Your task to perform on an android device: Open the phone app and click the voicemail tab. Image 0: 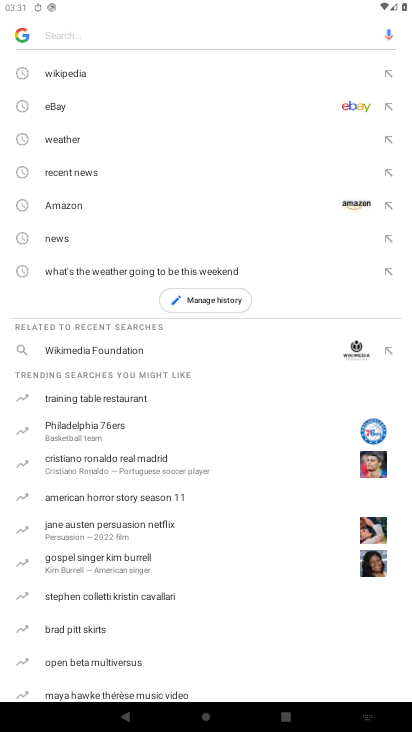
Step 0: press home button
Your task to perform on an android device: Open the phone app and click the voicemail tab. Image 1: 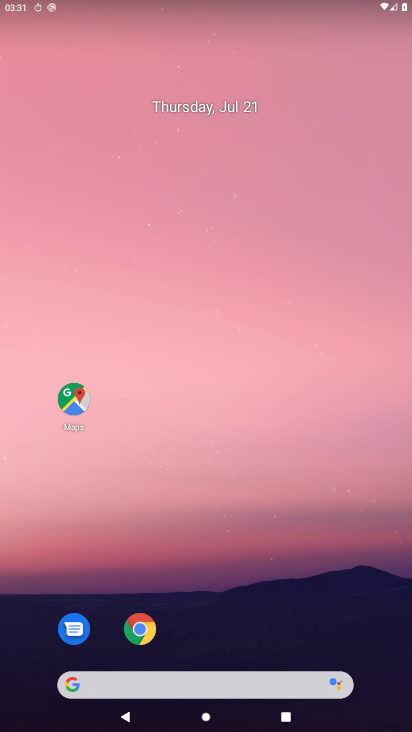
Step 1: drag from (168, 404) to (277, 225)
Your task to perform on an android device: Open the phone app and click the voicemail tab. Image 2: 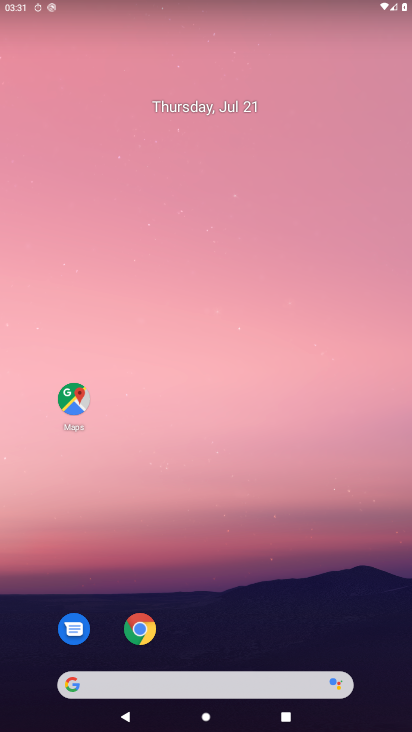
Step 2: drag from (25, 685) to (254, 210)
Your task to perform on an android device: Open the phone app and click the voicemail tab. Image 3: 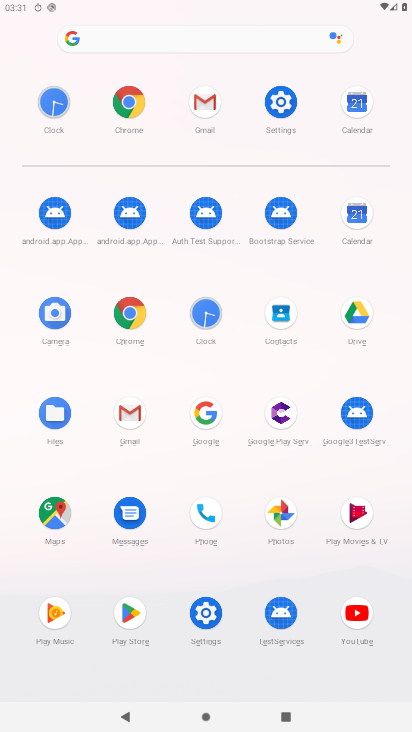
Step 3: click (190, 516)
Your task to perform on an android device: Open the phone app and click the voicemail tab. Image 4: 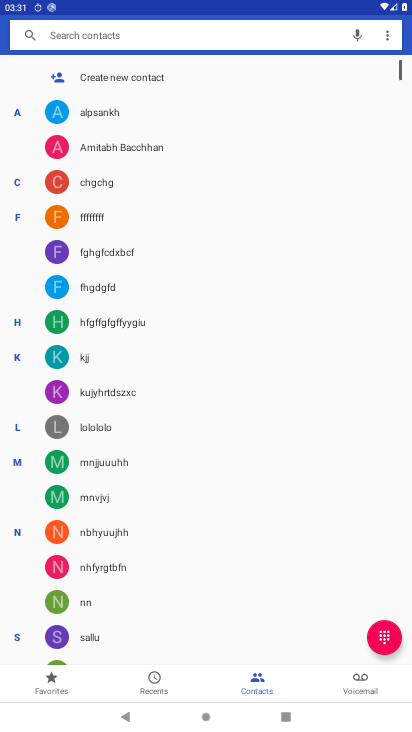
Step 4: click (360, 678)
Your task to perform on an android device: Open the phone app and click the voicemail tab. Image 5: 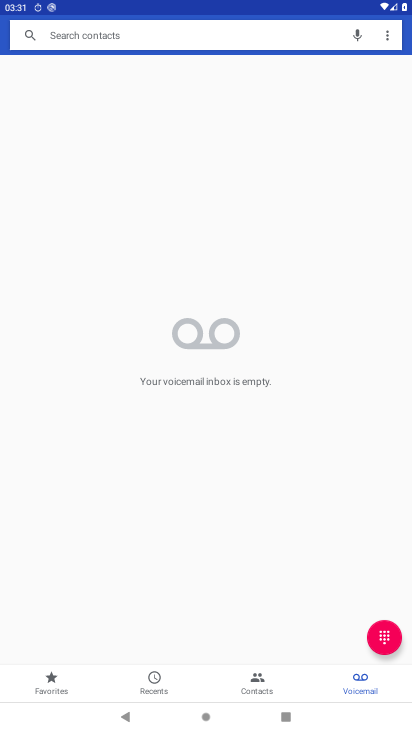
Step 5: task complete